Your task to perform on an android device: Open internet settings Image 0: 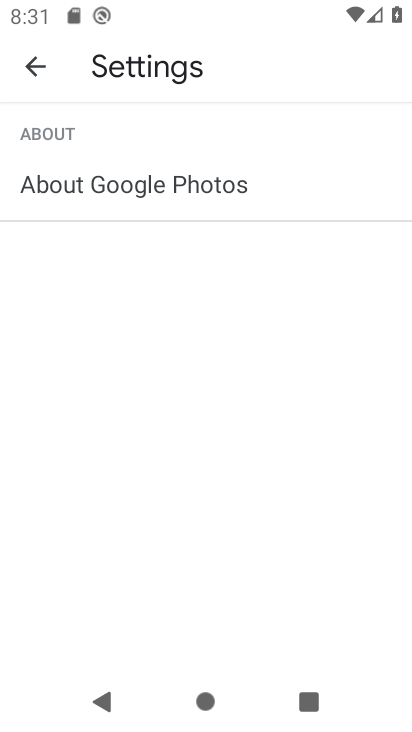
Step 0: press home button
Your task to perform on an android device: Open internet settings Image 1: 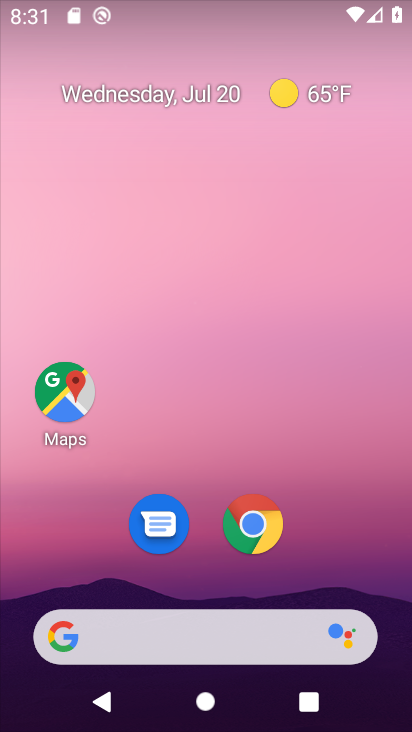
Step 1: drag from (341, 524) to (320, 14)
Your task to perform on an android device: Open internet settings Image 2: 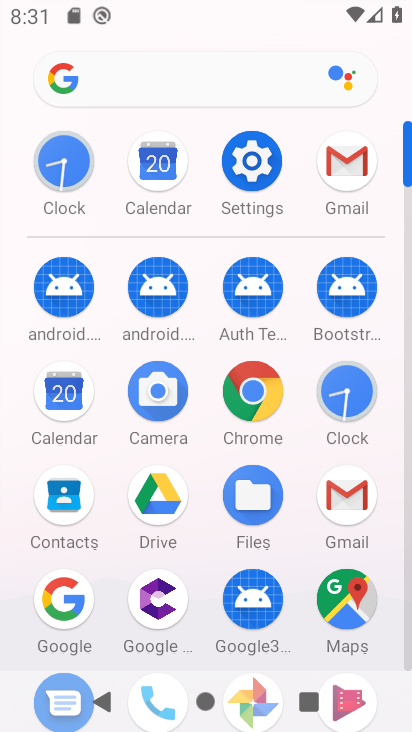
Step 2: click (257, 167)
Your task to perform on an android device: Open internet settings Image 3: 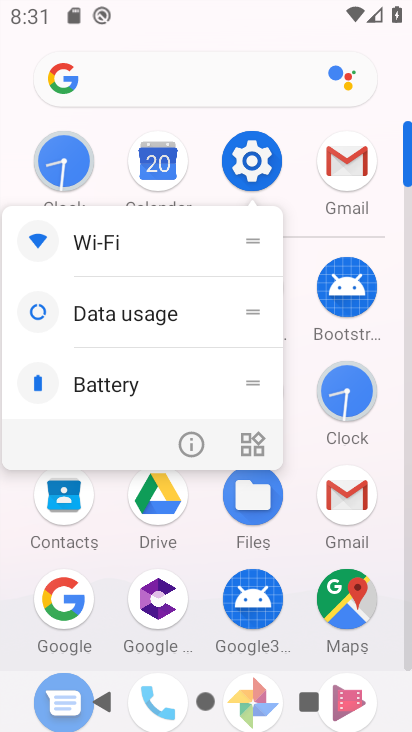
Step 3: click (255, 157)
Your task to perform on an android device: Open internet settings Image 4: 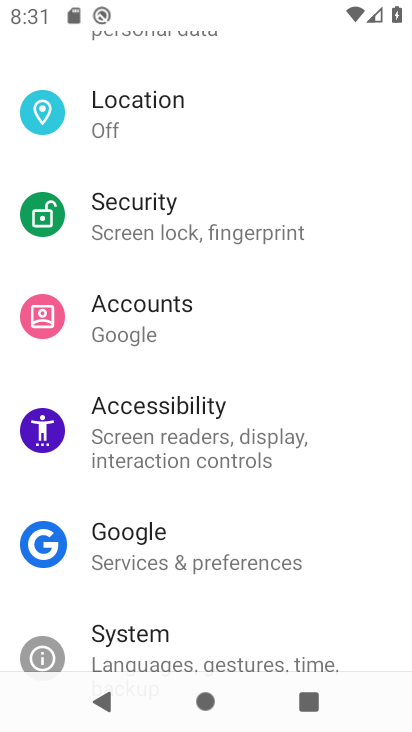
Step 4: drag from (250, 161) to (222, 571)
Your task to perform on an android device: Open internet settings Image 5: 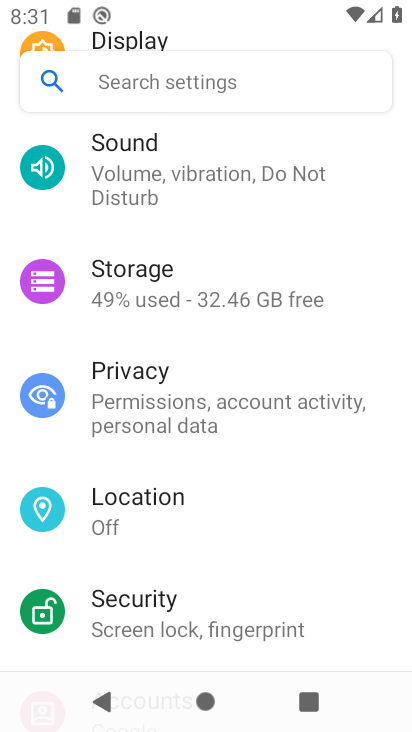
Step 5: drag from (210, 232) to (223, 572)
Your task to perform on an android device: Open internet settings Image 6: 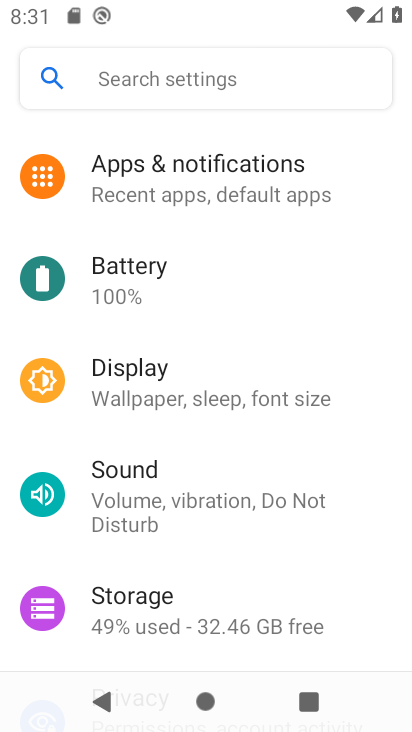
Step 6: drag from (195, 253) to (218, 515)
Your task to perform on an android device: Open internet settings Image 7: 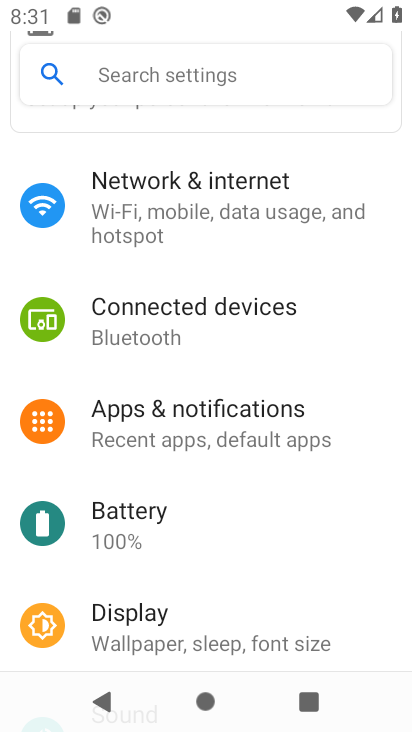
Step 7: click (207, 197)
Your task to perform on an android device: Open internet settings Image 8: 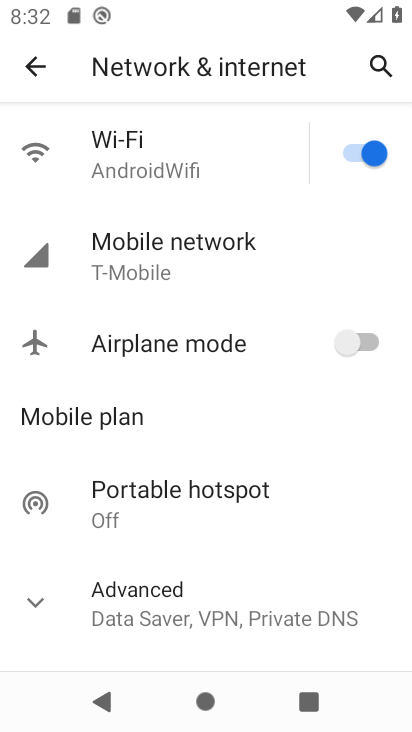
Step 8: task complete